Your task to perform on an android device: Open Chrome and go to the settings page Image 0: 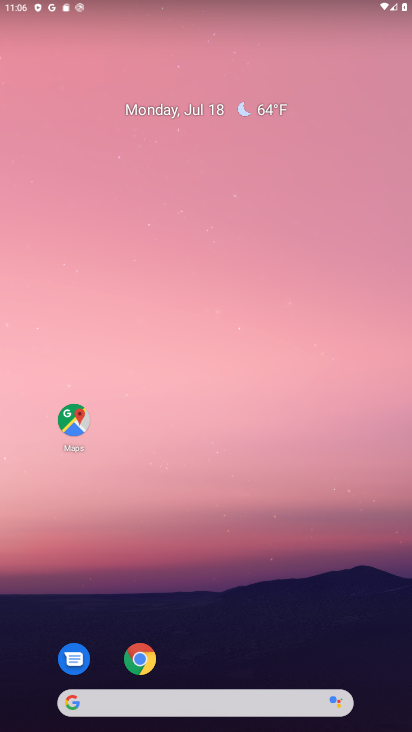
Step 0: click (139, 648)
Your task to perform on an android device: Open Chrome and go to the settings page Image 1: 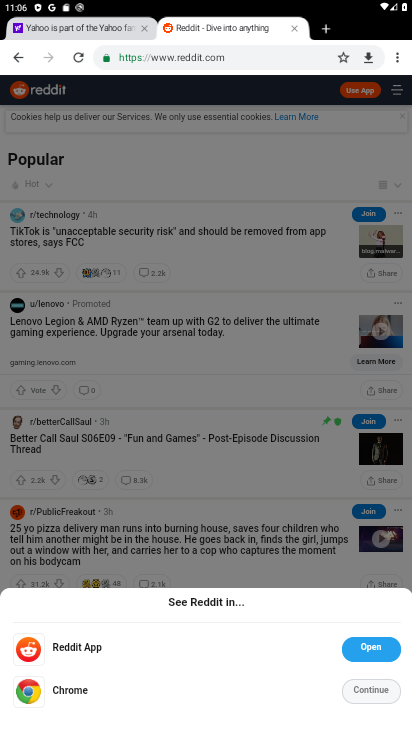
Step 1: click (405, 57)
Your task to perform on an android device: Open Chrome and go to the settings page Image 2: 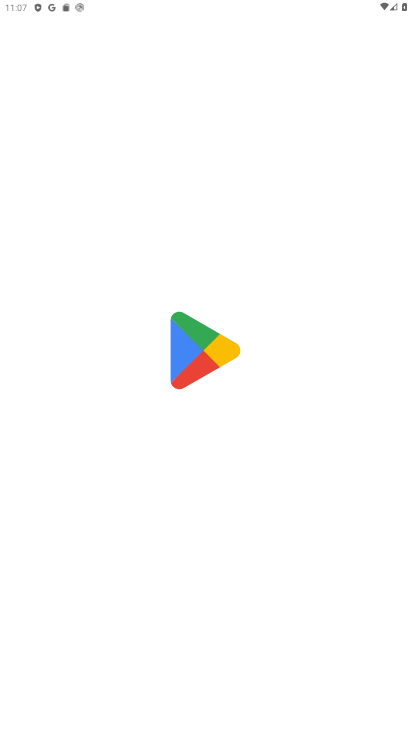
Step 2: press back button
Your task to perform on an android device: Open Chrome and go to the settings page Image 3: 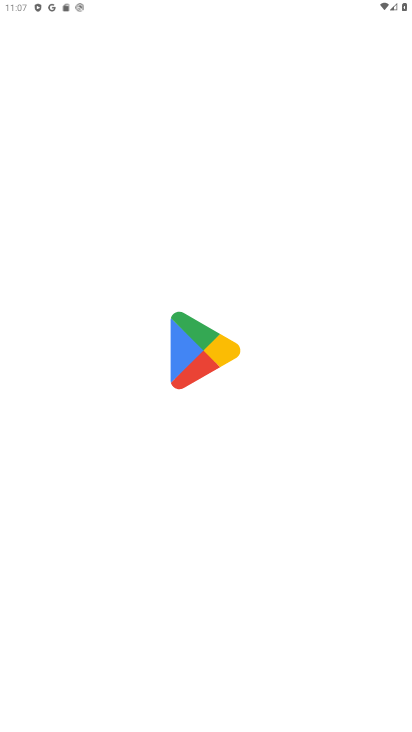
Step 3: press back button
Your task to perform on an android device: Open Chrome and go to the settings page Image 4: 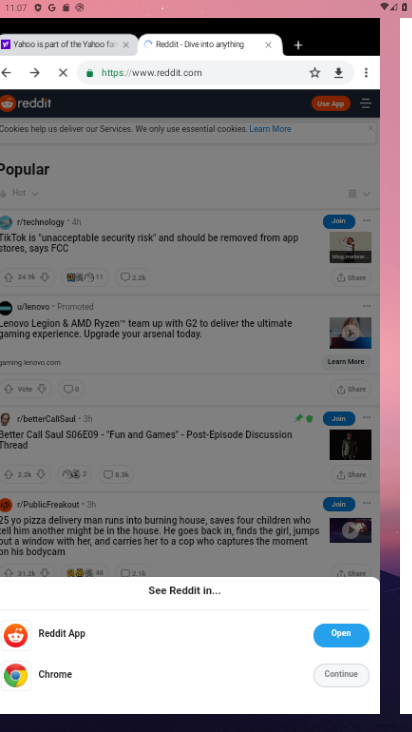
Step 4: press home button
Your task to perform on an android device: Open Chrome and go to the settings page Image 5: 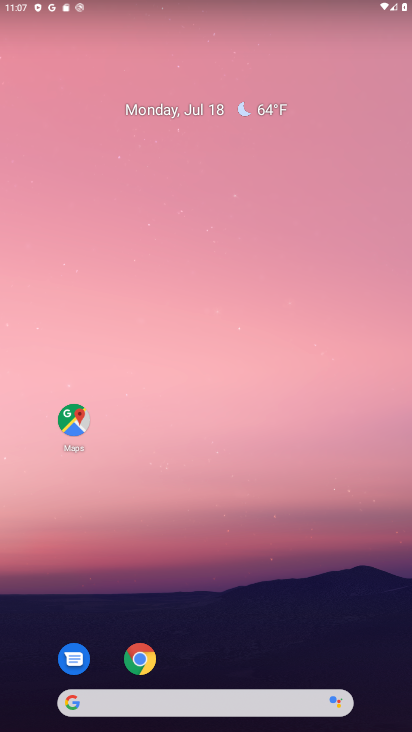
Step 5: click (141, 666)
Your task to perform on an android device: Open Chrome and go to the settings page Image 6: 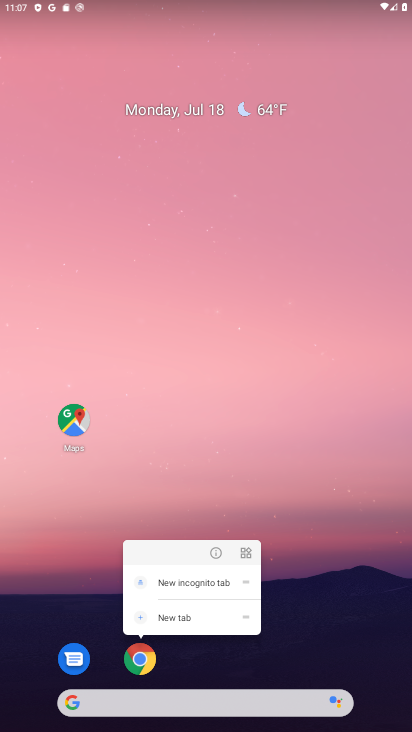
Step 6: click (146, 676)
Your task to perform on an android device: Open Chrome and go to the settings page Image 7: 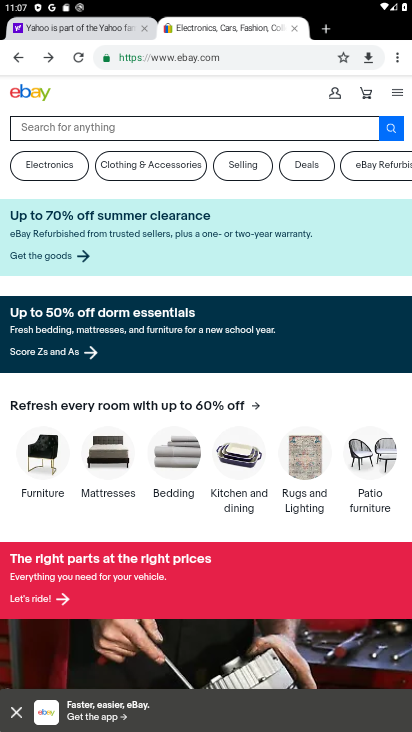
Step 7: task complete